Your task to perform on an android device: delete a single message in the gmail app Image 0: 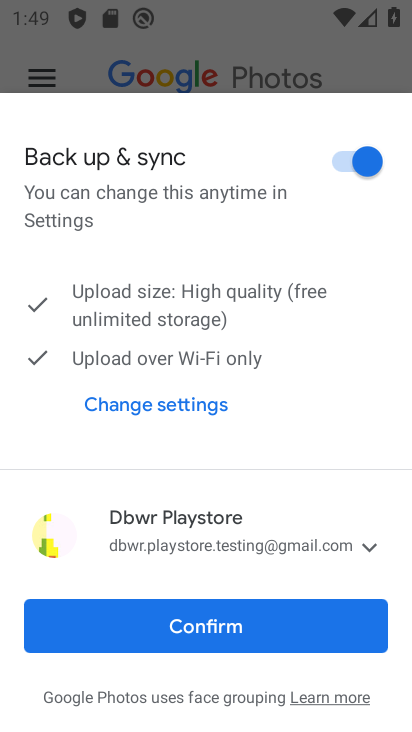
Step 0: press home button
Your task to perform on an android device: delete a single message in the gmail app Image 1: 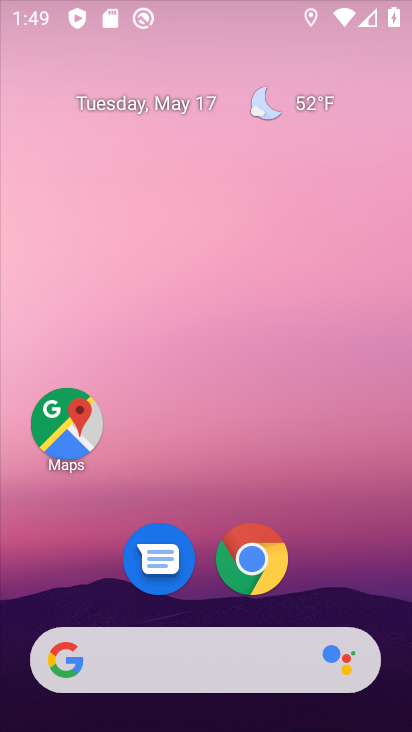
Step 1: drag from (227, 719) to (231, 18)
Your task to perform on an android device: delete a single message in the gmail app Image 2: 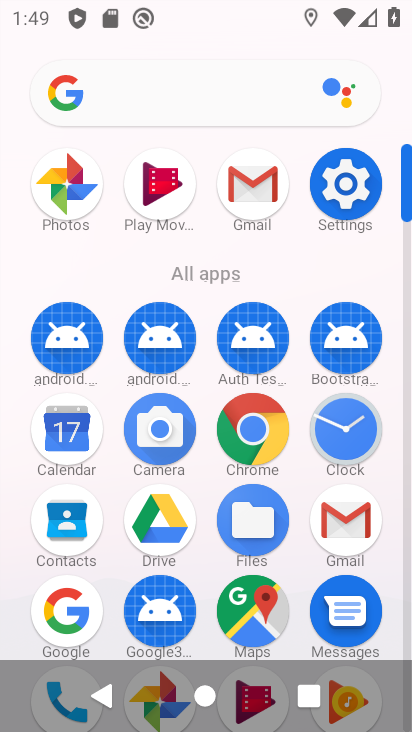
Step 2: click (329, 521)
Your task to perform on an android device: delete a single message in the gmail app Image 3: 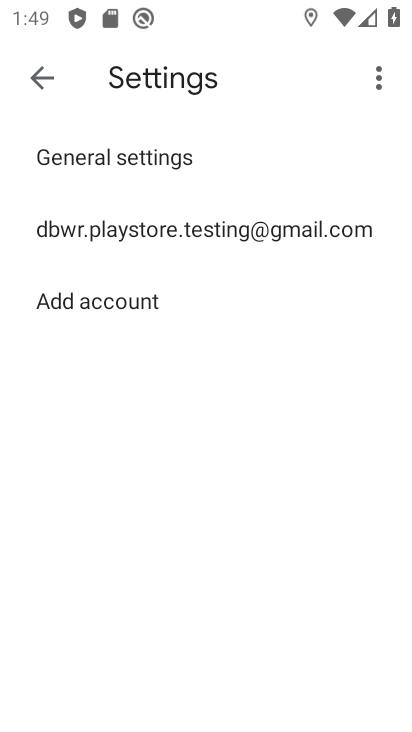
Step 3: click (44, 81)
Your task to perform on an android device: delete a single message in the gmail app Image 4: 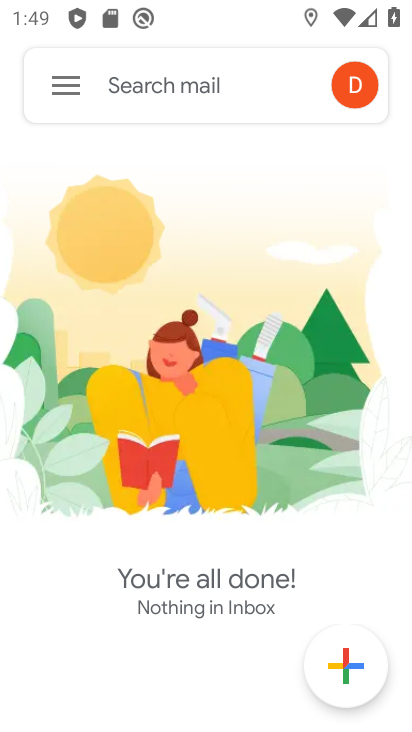
Step 4: task complete